Your task to perform on an android device: Open wifi settings Image 0: 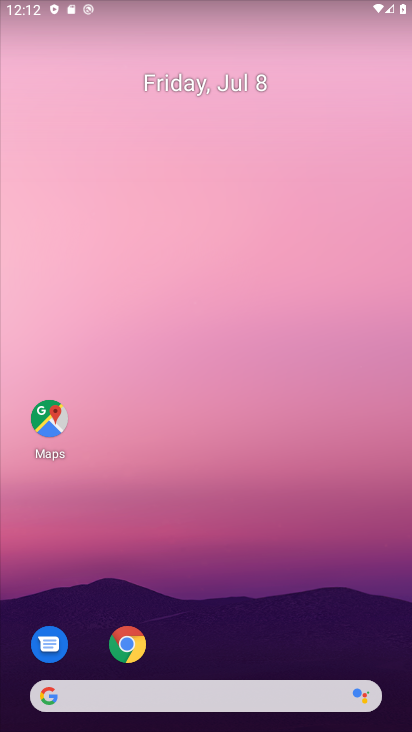
Step 0: drag from (191, 698) to (184, 48)
Your task to perform on an android device: Open wifi settings Image 1: 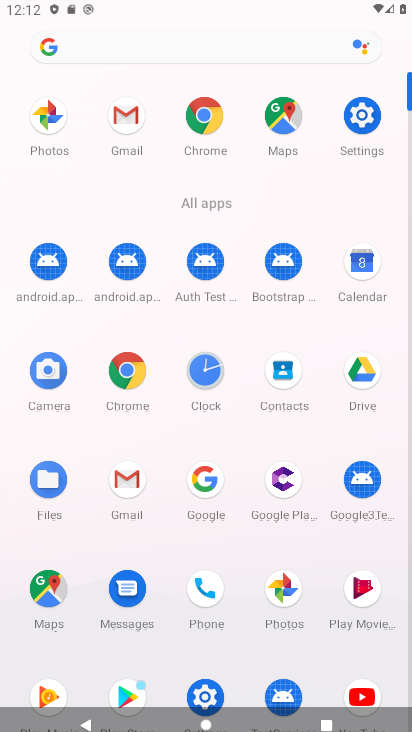
Step 1: click (366, 118)
Your task to perform on an android device: Open wifi settings Image 2: 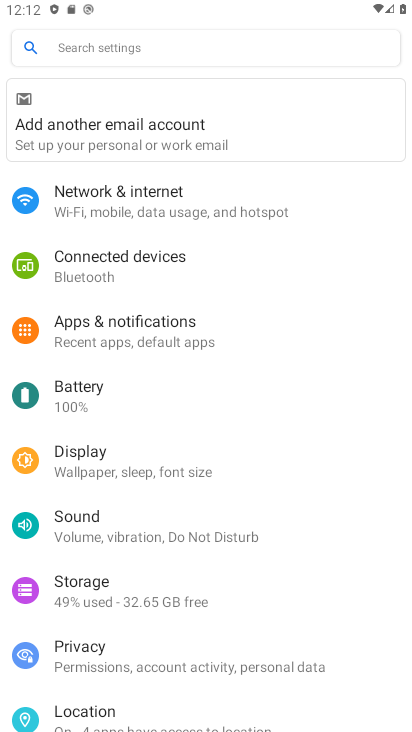
Step 2: click (181, 207)
Your task to perform on an android device: Open wifi settings Image 3: 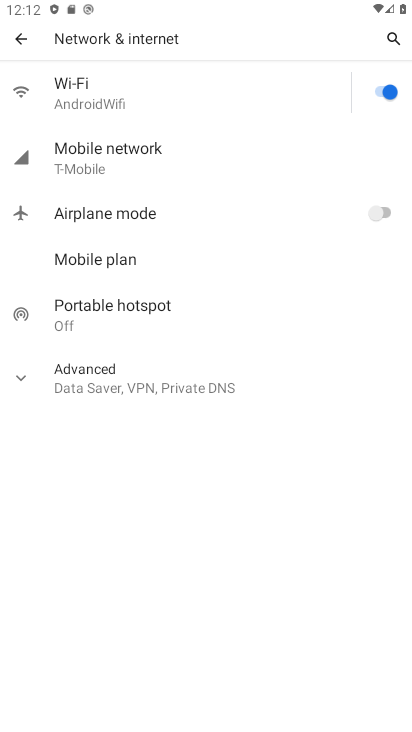
Step 3: click (130, 101)
Your task to perform on an android device: Open wifi settings Image 4: 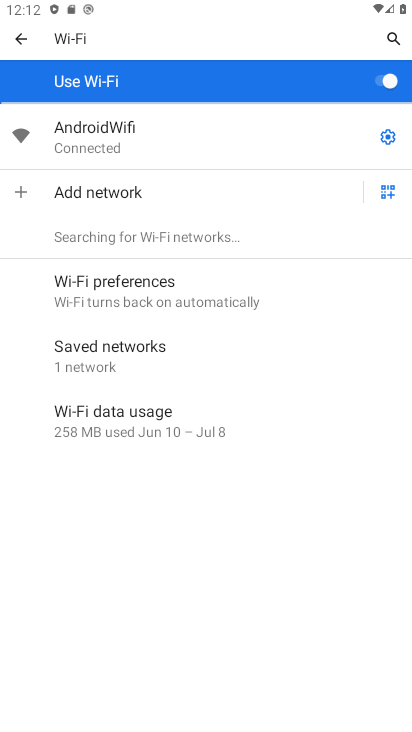
Step 4: task complete